Your task to perform on an android device: set default search engine in the chrome app Image 0: 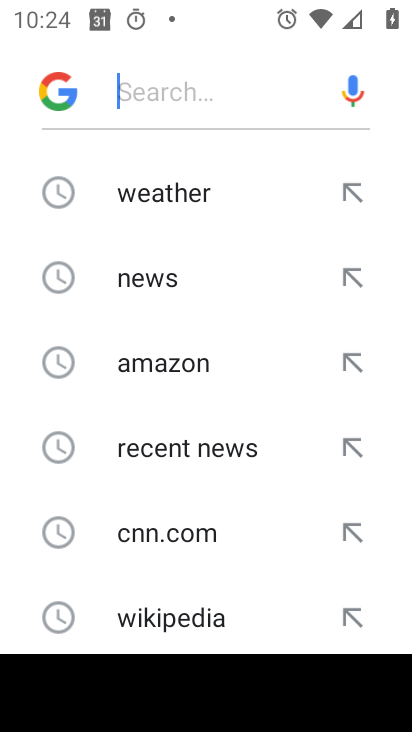
Step 0: press home button
Your task to perform on an android device: set default search engine in the chrome app Image 1: 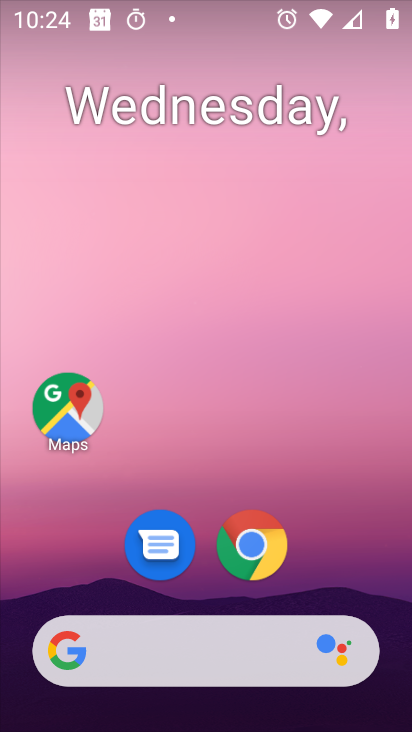
Step 1: click (268, 538)
Your task to perform on an android device: set default search engine in the chrome app Image 2: 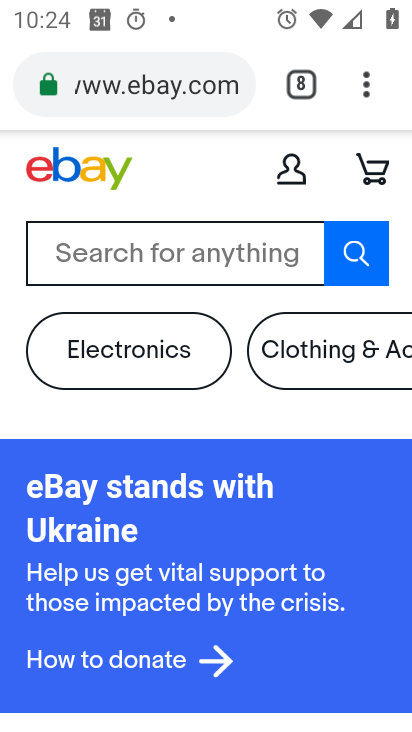
Step 2: drag from (366, 81) to (202, 574)
Your task to perform on an android device: set default search engine in the chrome app Image 3: 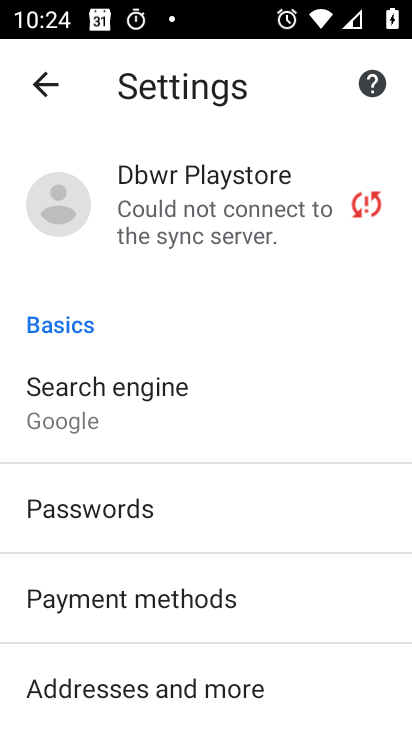
Step 3: click (128, 401)
Your task to perform on an android device: set default search engine in the chrome app Image 4: 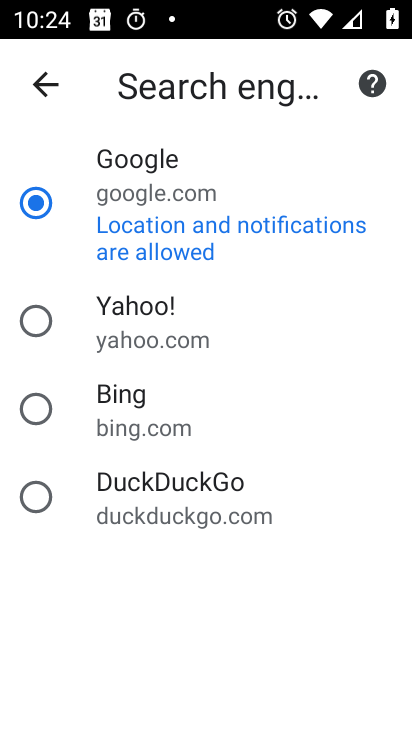
Step 4: click (38, 323)
Your task to perform on an android device: set default search engine in the chrome app Image 5: 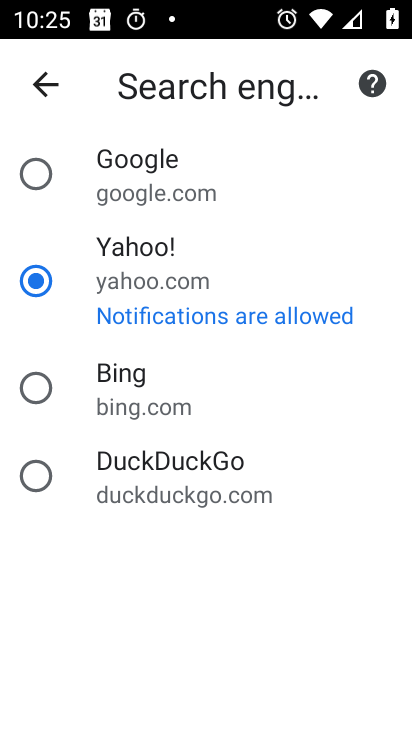
Step 5: task complete